Your task to perform on an android device: Go to sound settings Image 0: 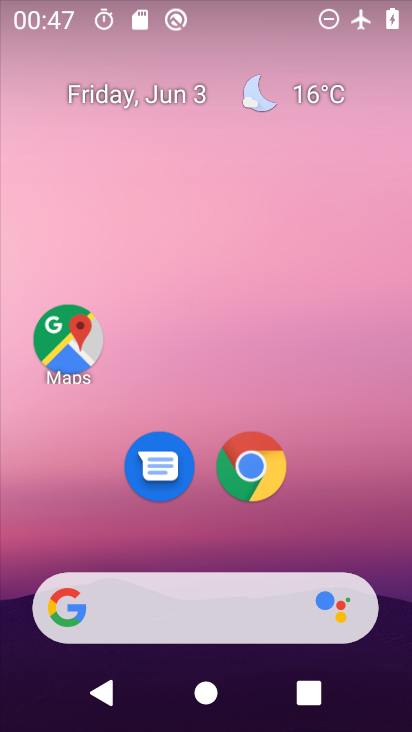
Step 0: drag from (194, 554) to (207, 162)
Your task to perform on an android device: Go to sound settings Image 1: 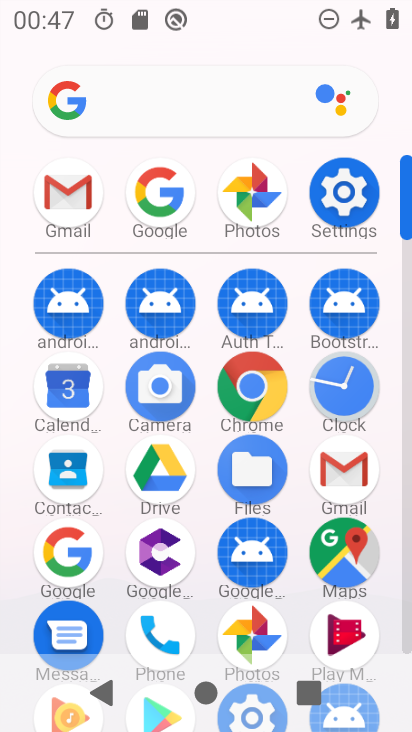
Step 1: click (323, 189)
Your task to perform on an android device: Go to sound settings Image 2: 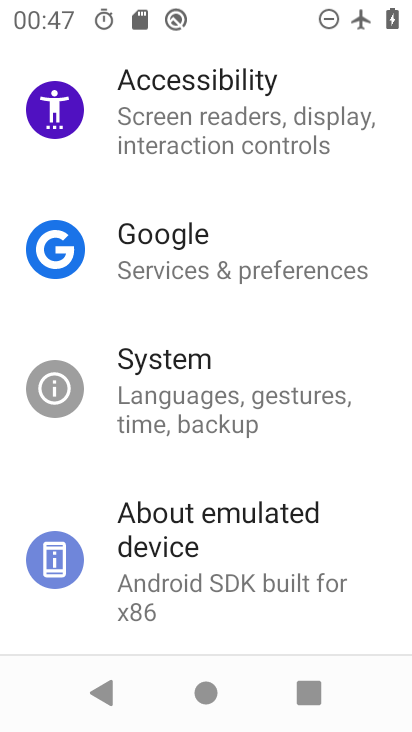
Step 2: drag from (194, 200) to (256, 566)
Your task to perform on an android device: Go to sound settings Image 3: 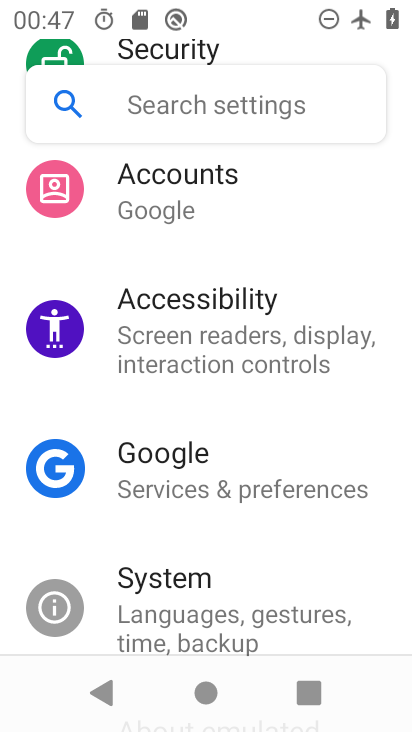
Step 3: drag from (247, 244) to (291, 530)
Your task to perform on an android device: Go to sound settings Image 4: 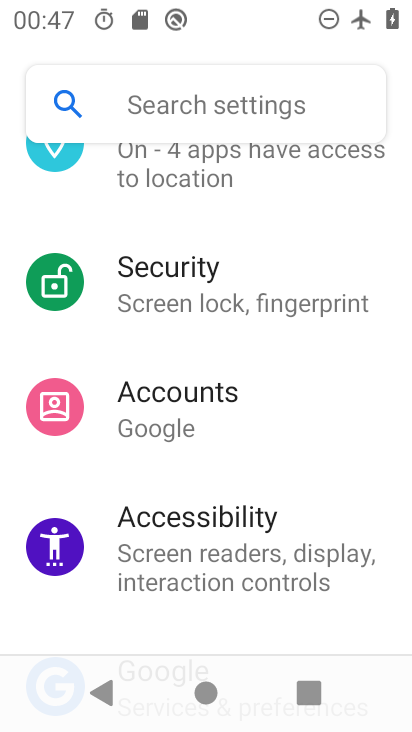
Step 4: drag from (240, 266) to (261, 434)
Your task to perform on an android device: Go to sound settings Image 5: 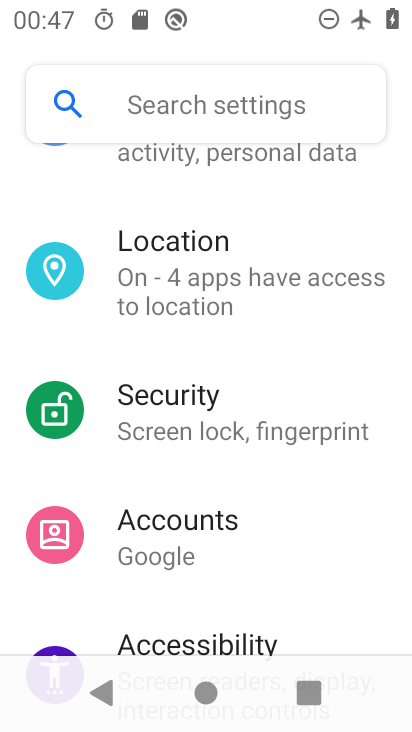
Step 5: drag from (248, 321) to (280, 568)
Your task to perform on an android device: Go to sound settings Image 6: 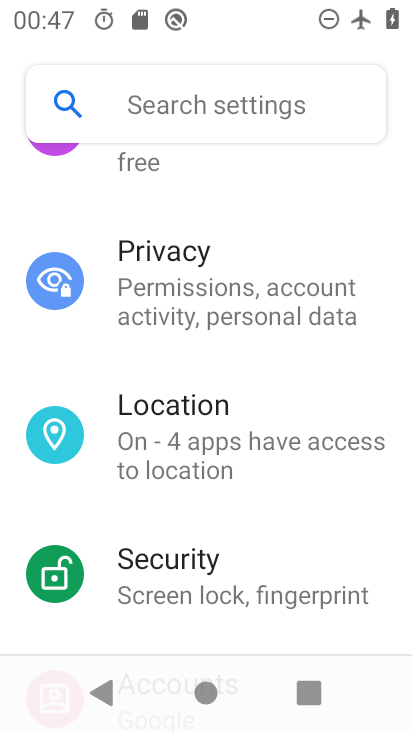
Step 6: drag from (223, 247) to (248, 558)
Your task to perform on an android device: Go to sound settings Image 7: 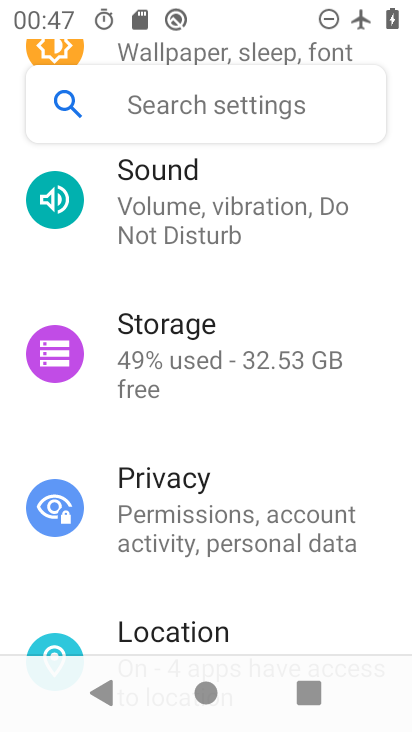
Step 7: click (212, 211)
Your task to perform on an android device: Go to sound settings Image 8: 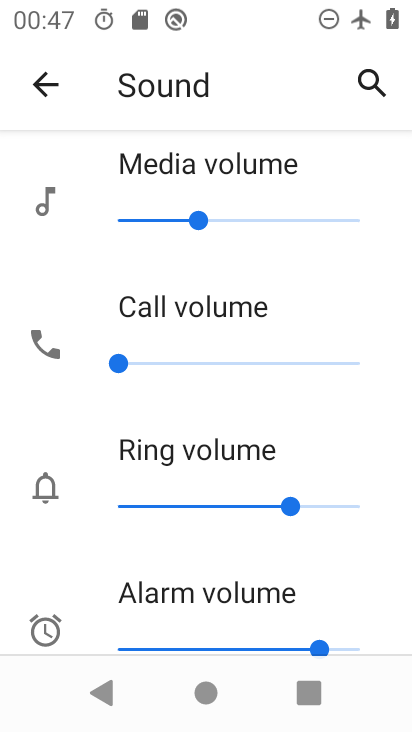
Step 8: task complete